Your task to perform on an android device: Open the phone app and click the voicemail tab. Image 0: 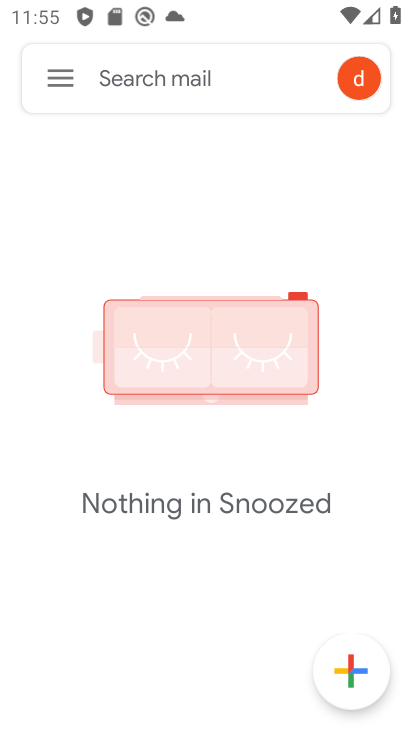
Step 0: press home button
Your task to perform on an android device: Open the phone app and click the voicemail tab. Image 1: 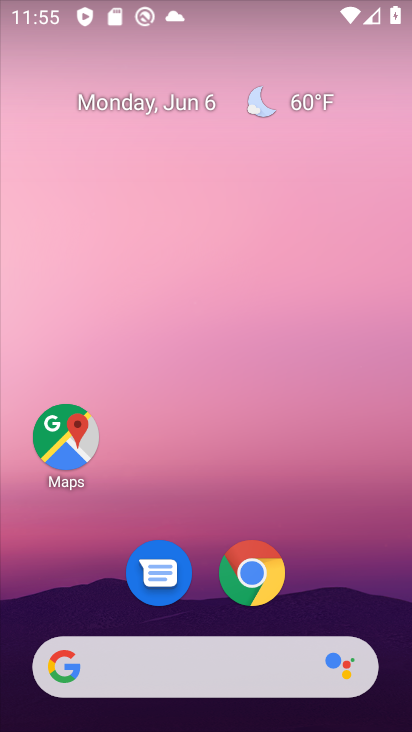
Step 1: drag from (348, 589) to (345, 94)
Your task to perform on an android device: Open the phone app and click the voicemail tab. Image 2: 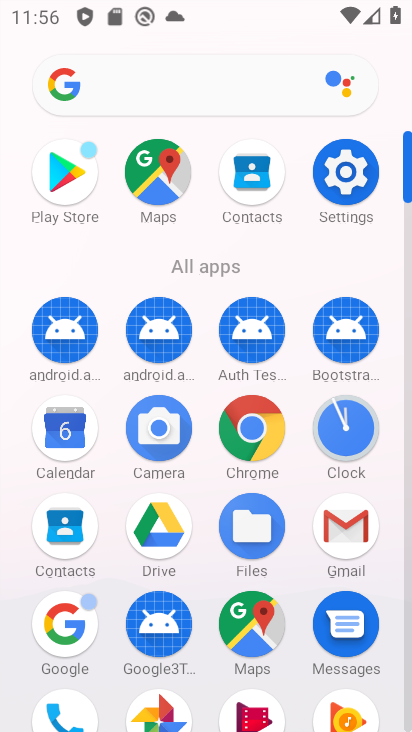
Step 2: drag from (257, 631) to (237, 448)
Your task to perform on an android device: Open the phone app and click the voicemail tab. Image 3: 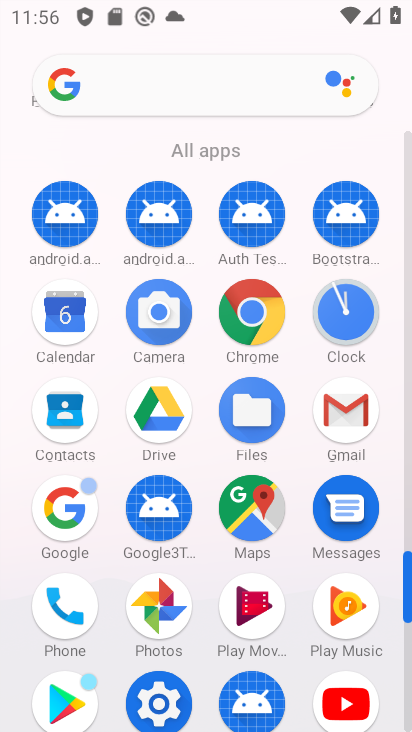
Step 3: click (66, 614)
Your task to perform on an android device: Open the phone app and click the voicemail tab. Image 4: 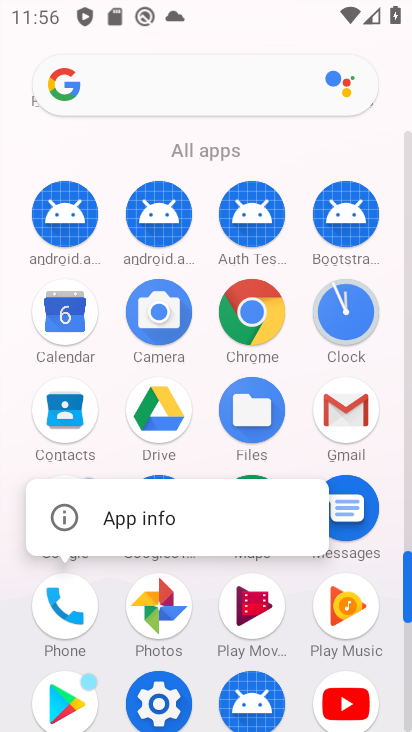
Step 4: click (66, 614)
Your task to perform on an android device: Open the phone app and click the voicemail tab. Image 5: 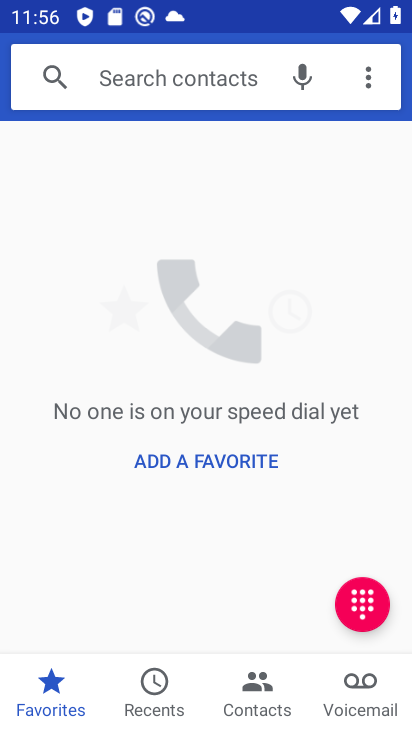
Step 5: click (386, 709)
Your task to perform on an android device: Open the phone app and click the voicemail tab. Image 6: 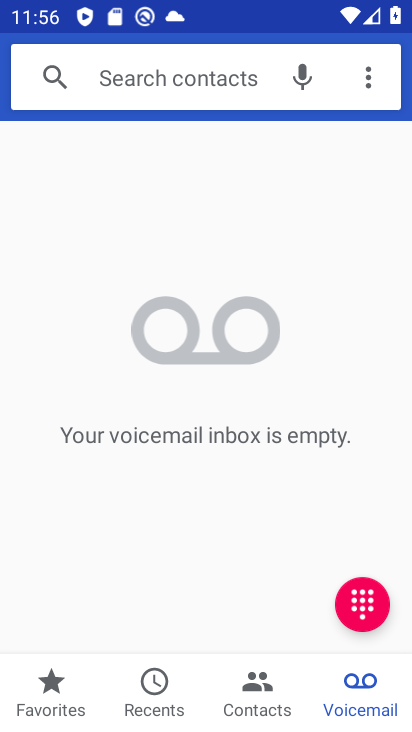
Step 6: task complete